Your task to perform on an android device: Empty the shopping cart on walmart. Search for "apple airpods" on walmart, select the first entry, and add it to the cart. Image 0: 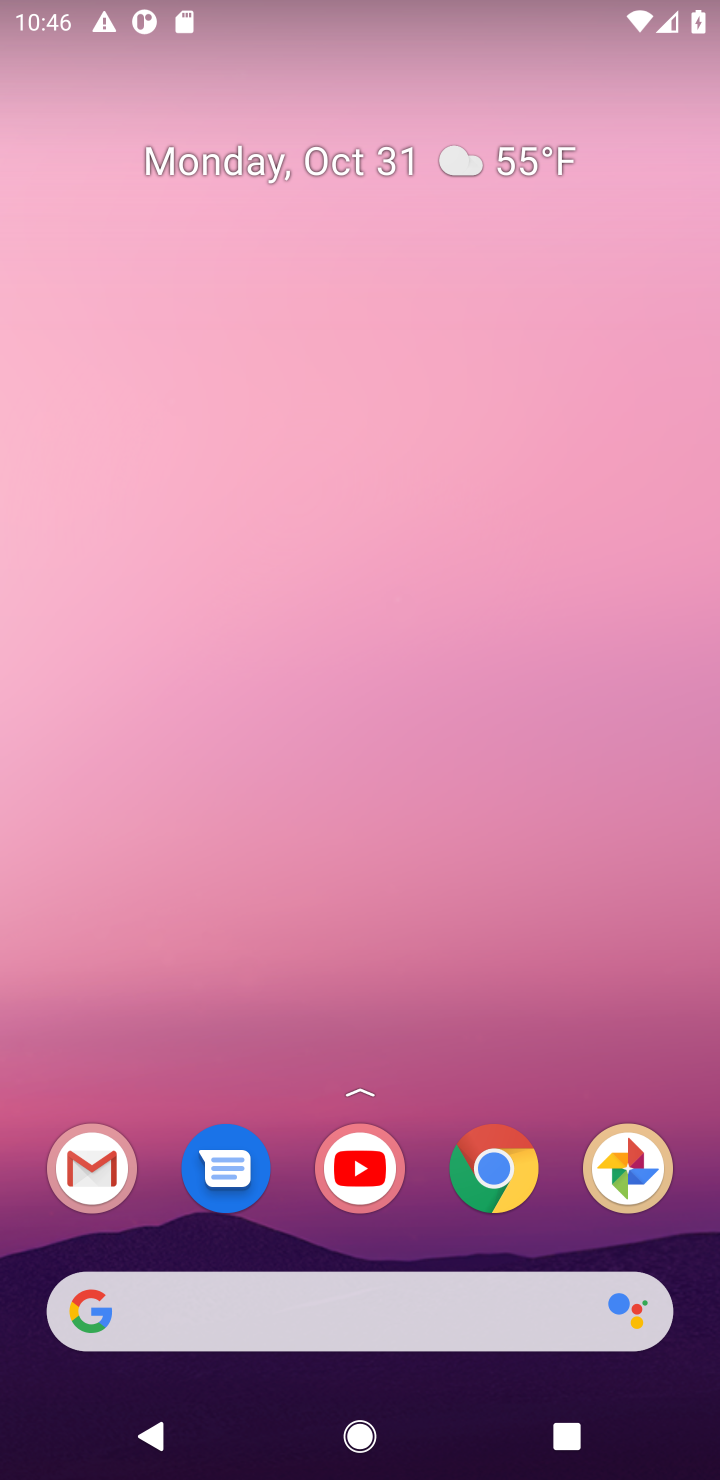
Step 0: click (503, 1171)
Your task to perform on an android device: Empty the shopping cart on walmart. Search for "apple airpods" on walmart, select the first entry, and add it to the cart. Image 1: 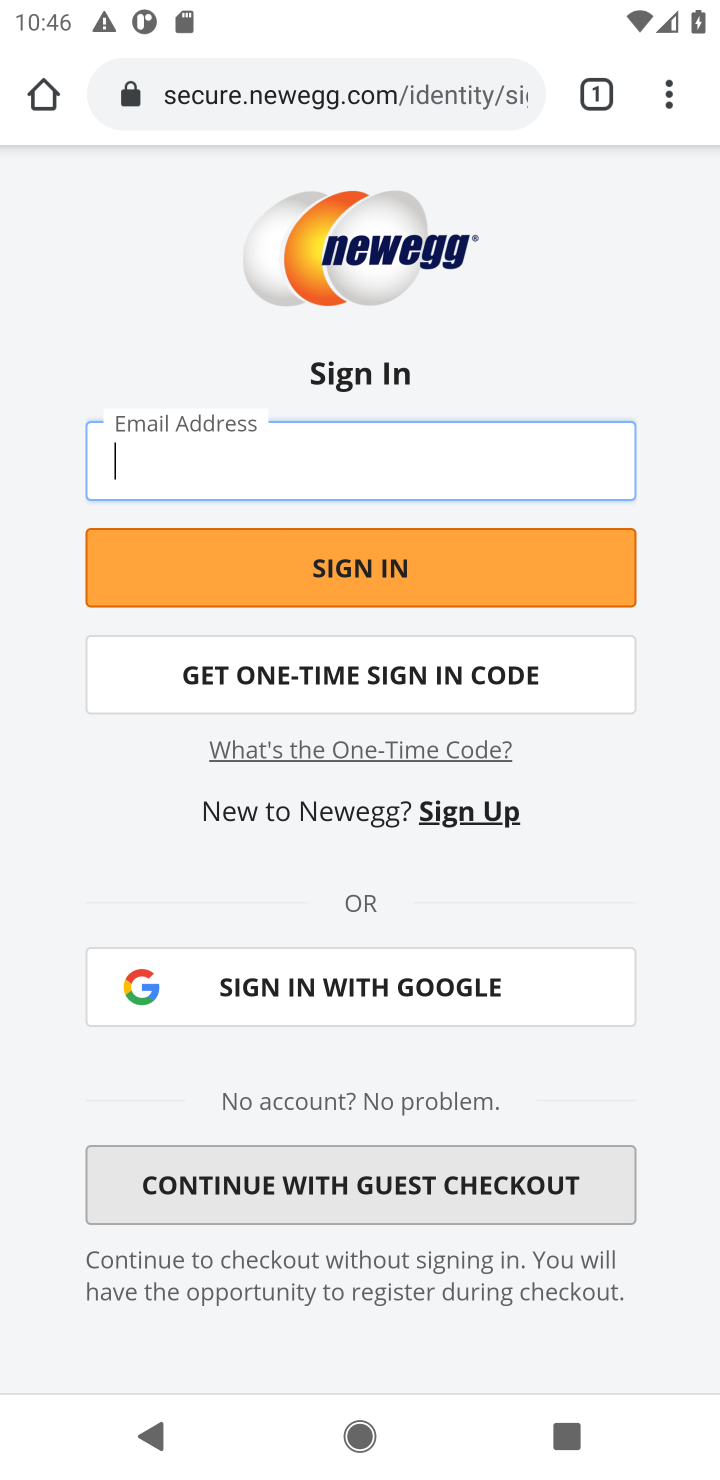
Step 1: click (294, 93)
Your task to perform on an android device: Empty the shopping cart on walmart. Search for "apple airpods" on walmart, select the first entry, and add it to the cart. Image 2: 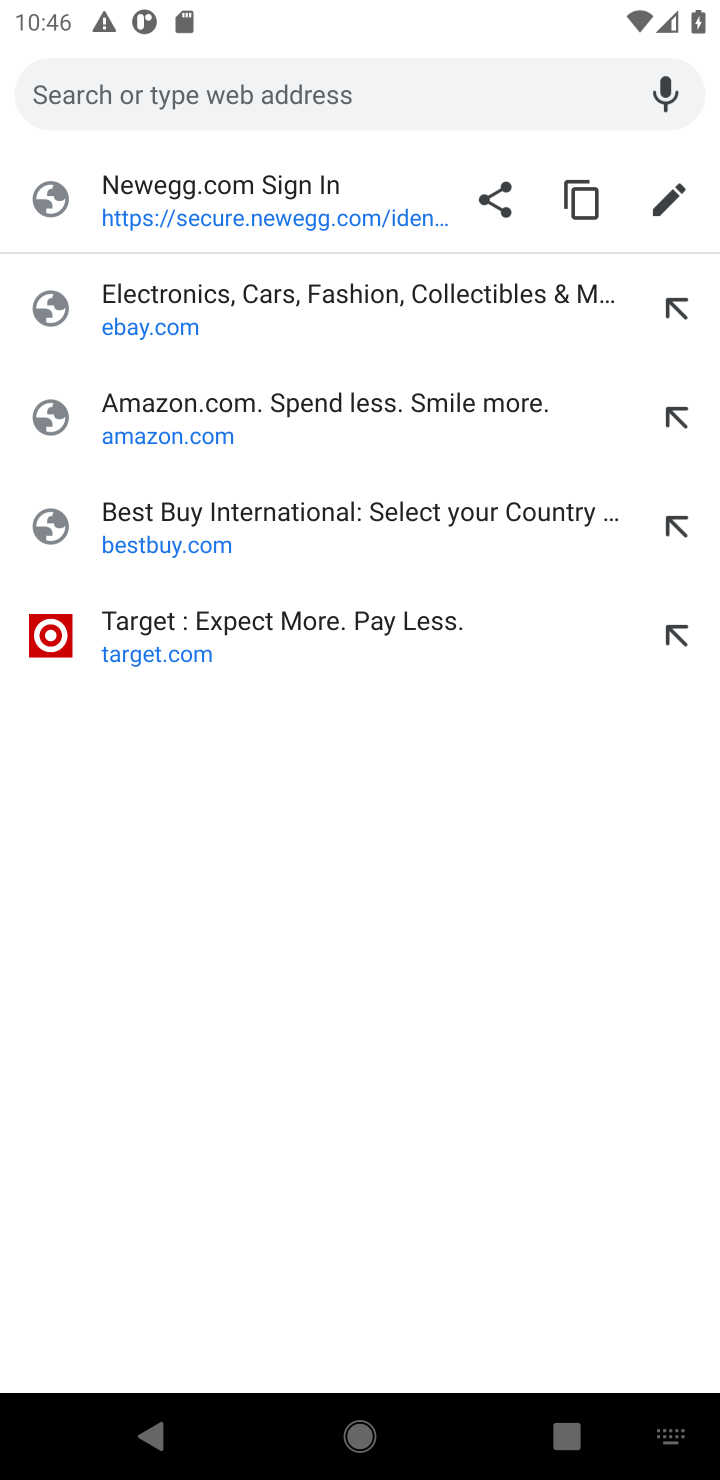
Step 2: type "wallmart"
Your task to perform on an android device: Empty the shopping cart on walmart. Search for "apple airpods" on walmart, select the first entry, and add it to the cart. Image 3: 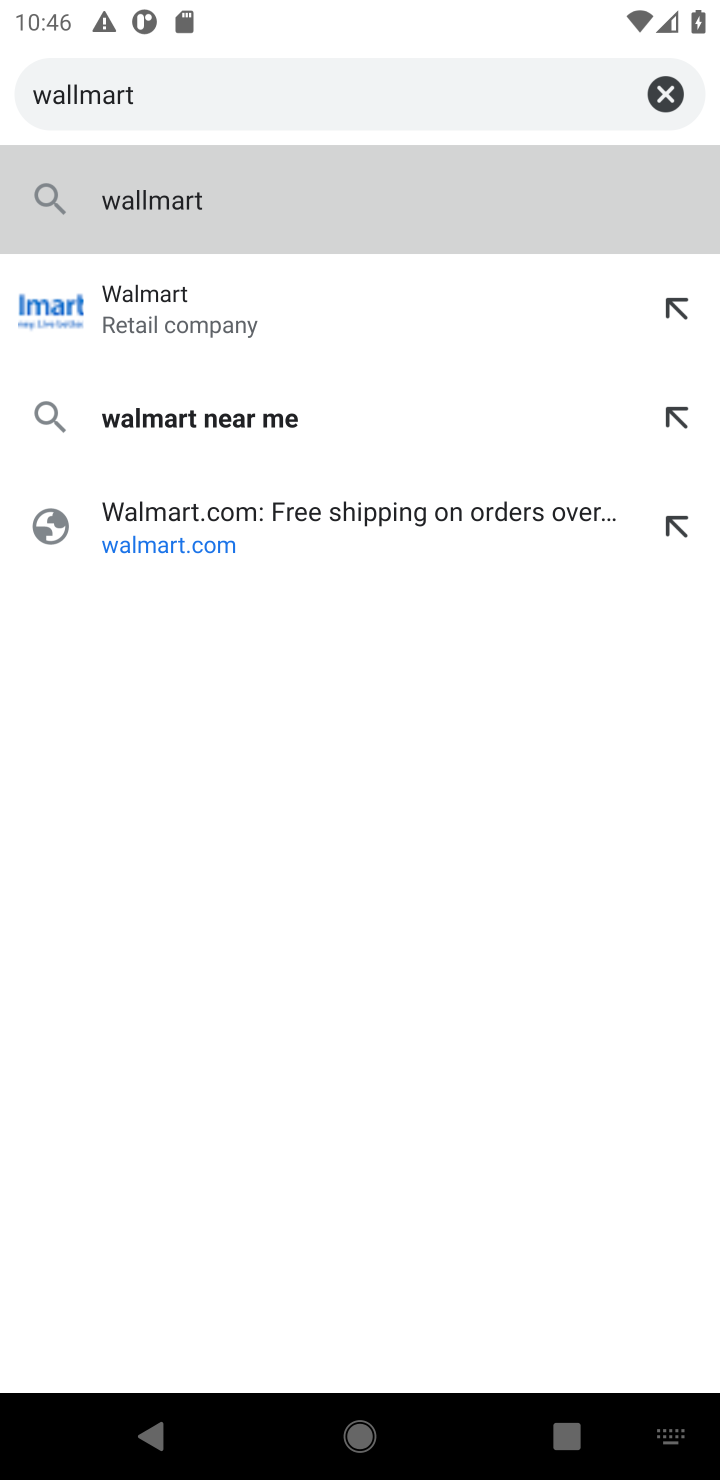
Step 3: click (171, 213)
Your task to perform on an android device: Empty the shopping cart on walmart. Search for "apple airpods" on walmart, select the first entry, and add it to the cart. Image 4: 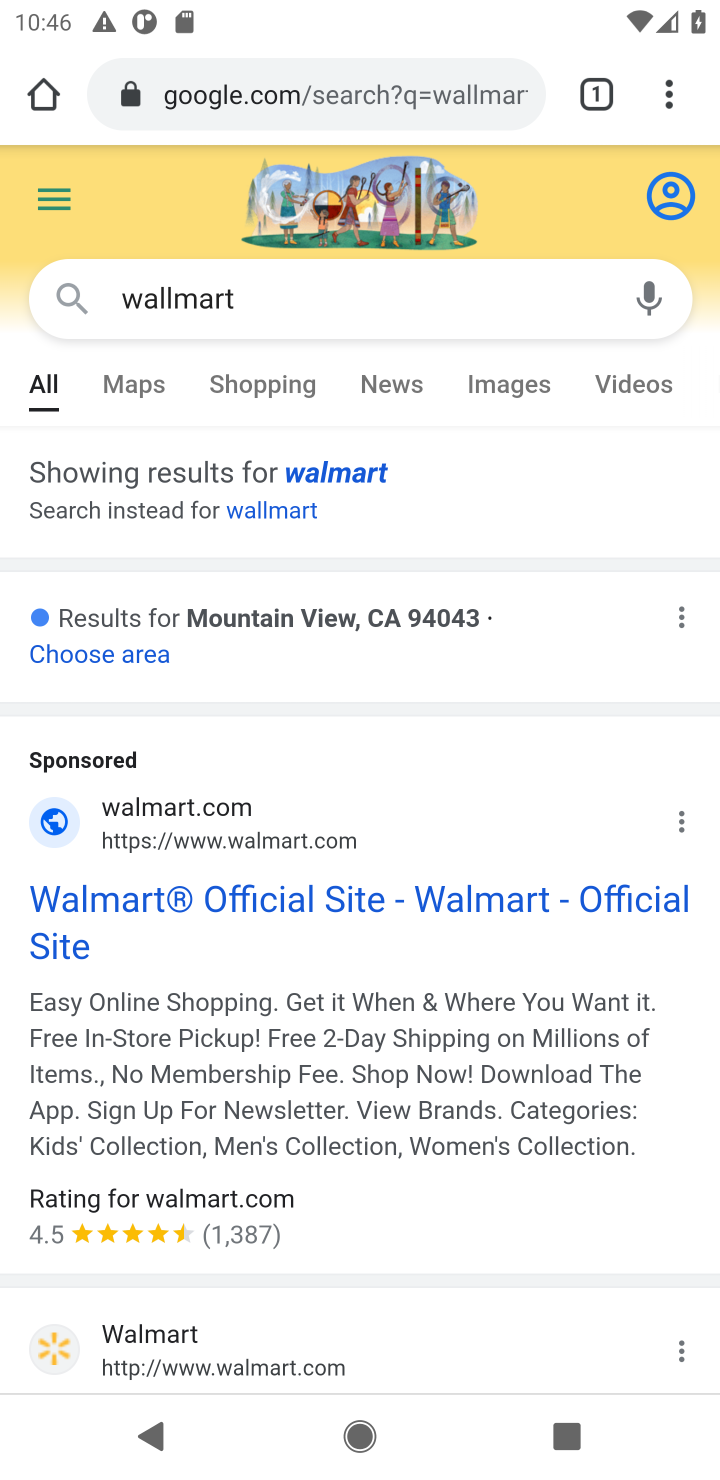
Step 4: drag from (476, 847) to (490, 459)
Your task to perform on an android device: Empty the shopping cart on walmart. Search for "apple airpods" on walmart, select the first entry, and add it to the cart. Image 5: 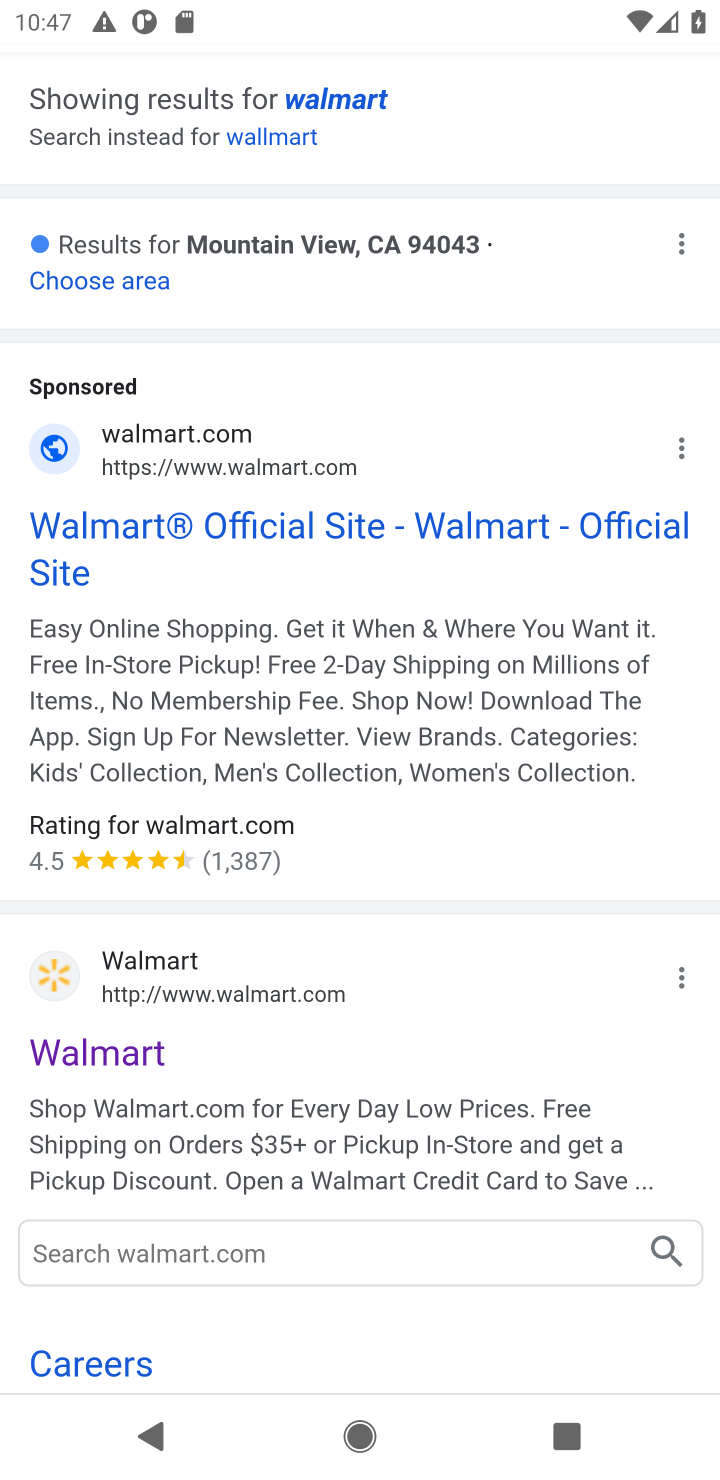
Step 5: click (105, 1046)
Your task to perform on an android device: Empty the shopping cart on walmart. Search for "apple airpods" on walmart, select the first entry, and add it to the cart. Image 6: 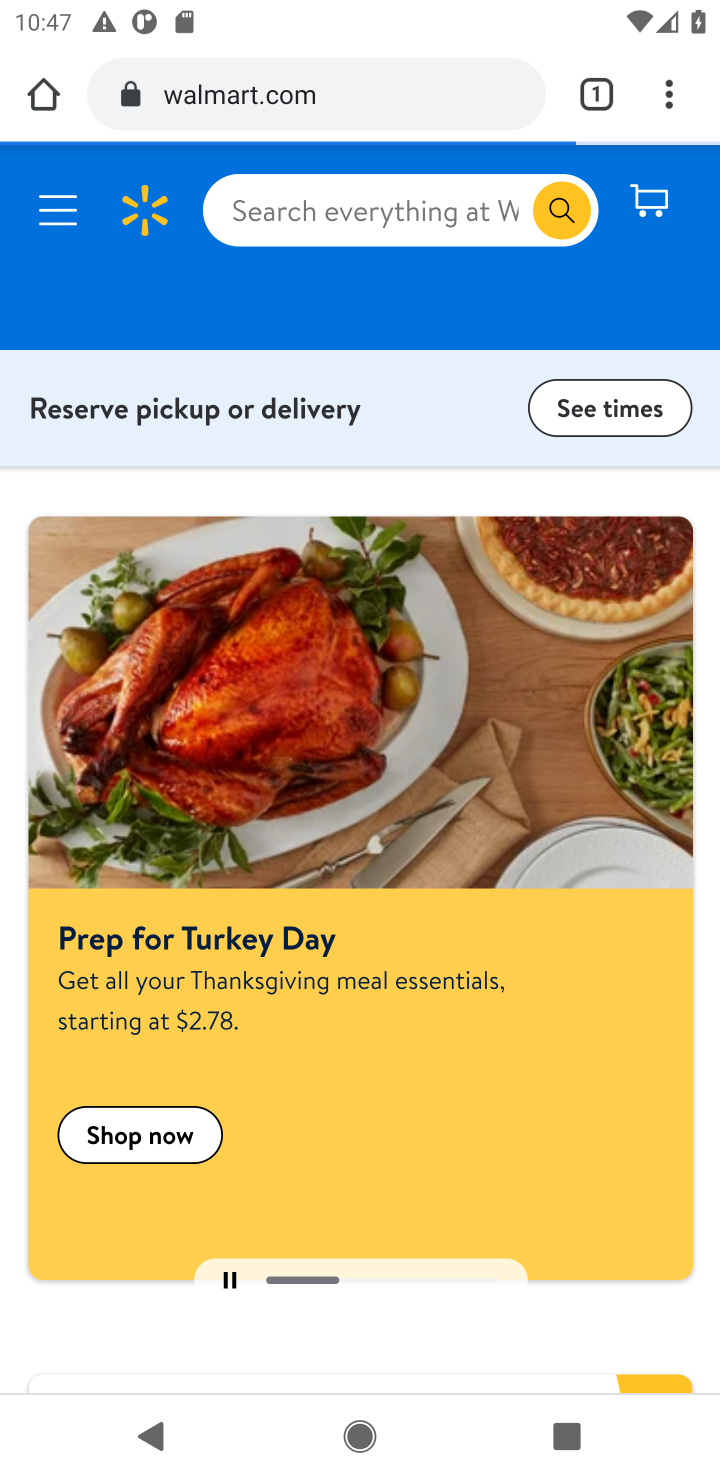
Step 6: drag from (592, 1319) to (546, 715)
Your task to perform on an android device: Empty the shopping cart on walmart. Search for "apple airpods" on walmart, select the first entry, and add it to the cart. Image 7: 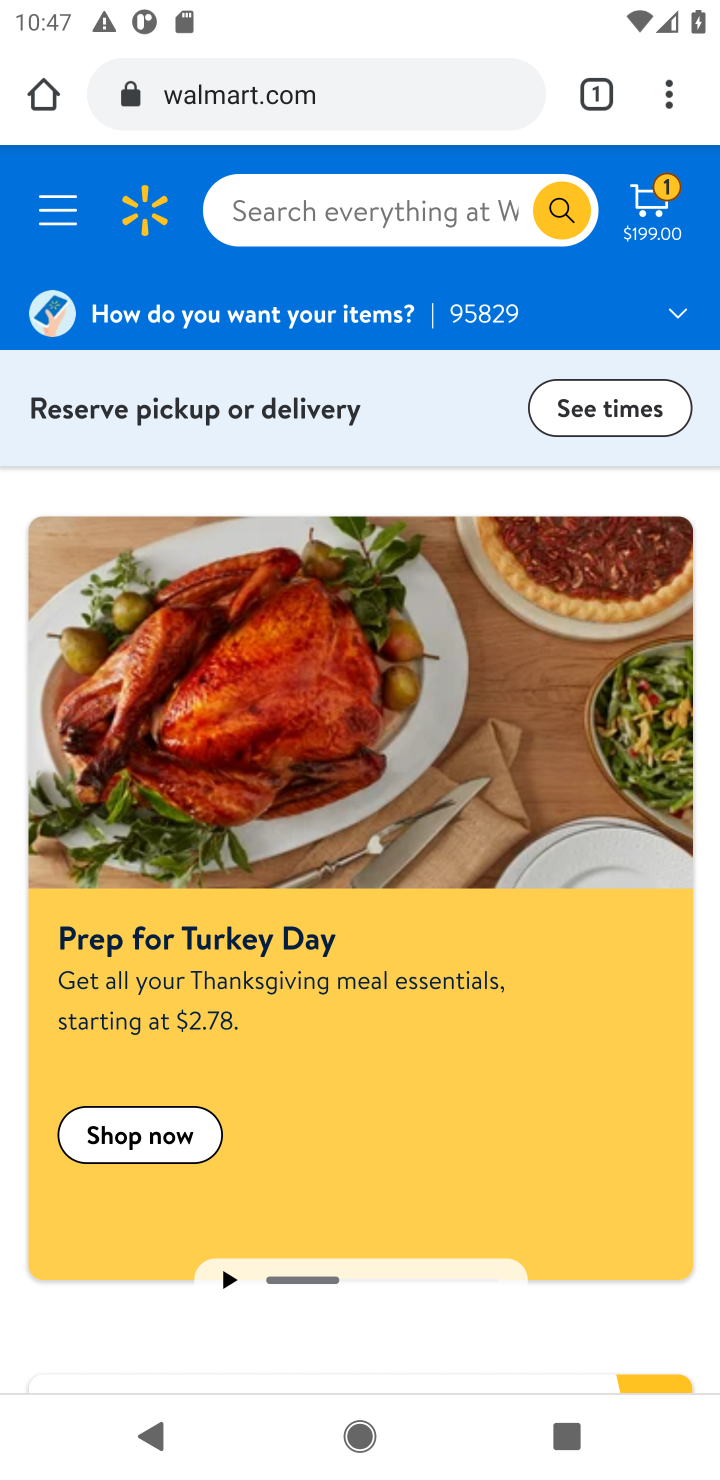
Step 7: click (484, 489)
Your task to perform on an android device: Empty the shopping cart on walmart. Search for "apple airpods" on walmart, select the first entry, and add it to the cart. Image 8: 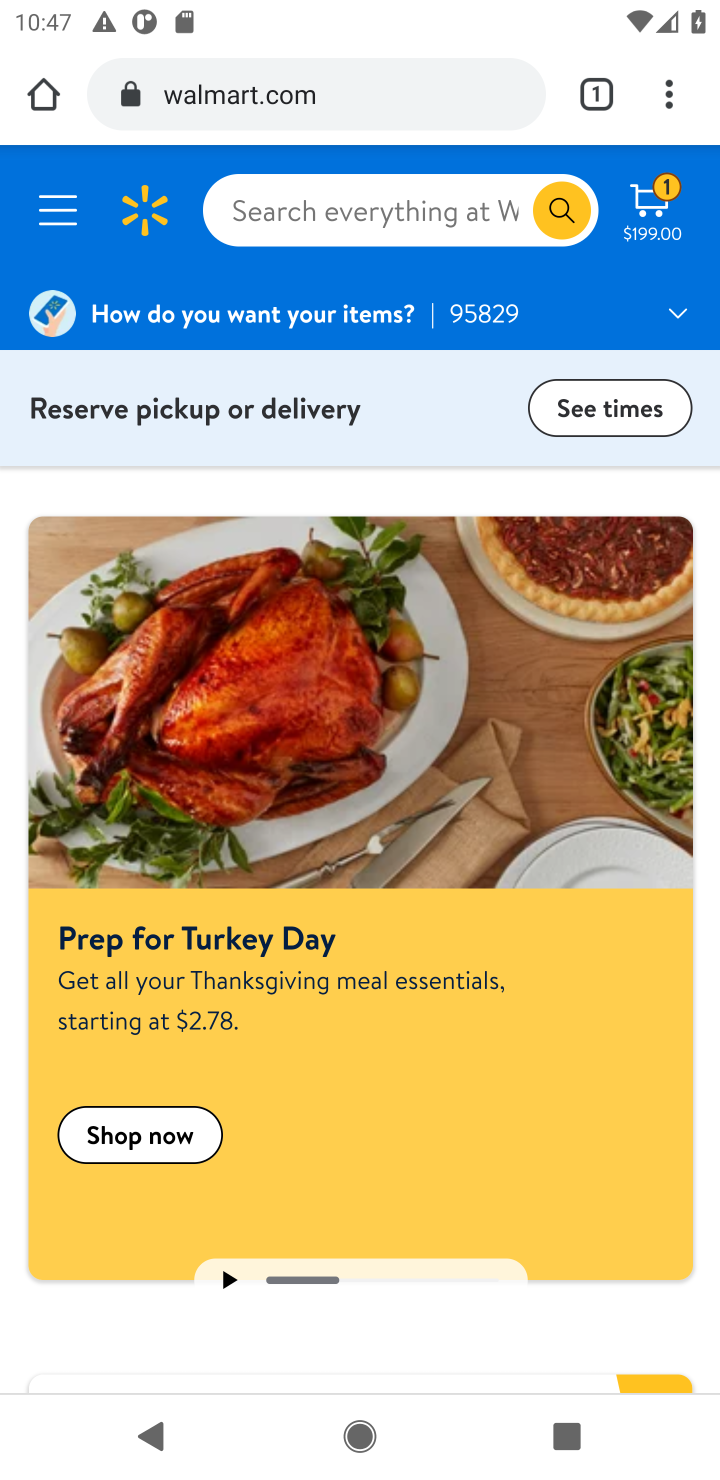
Step 8: click (655, 198)
Your task to perform on an android device: Empty the shopping cart on walmart. Search for "apple airpods" on walmart, select the first entry, and add it to the cart. Image 9: 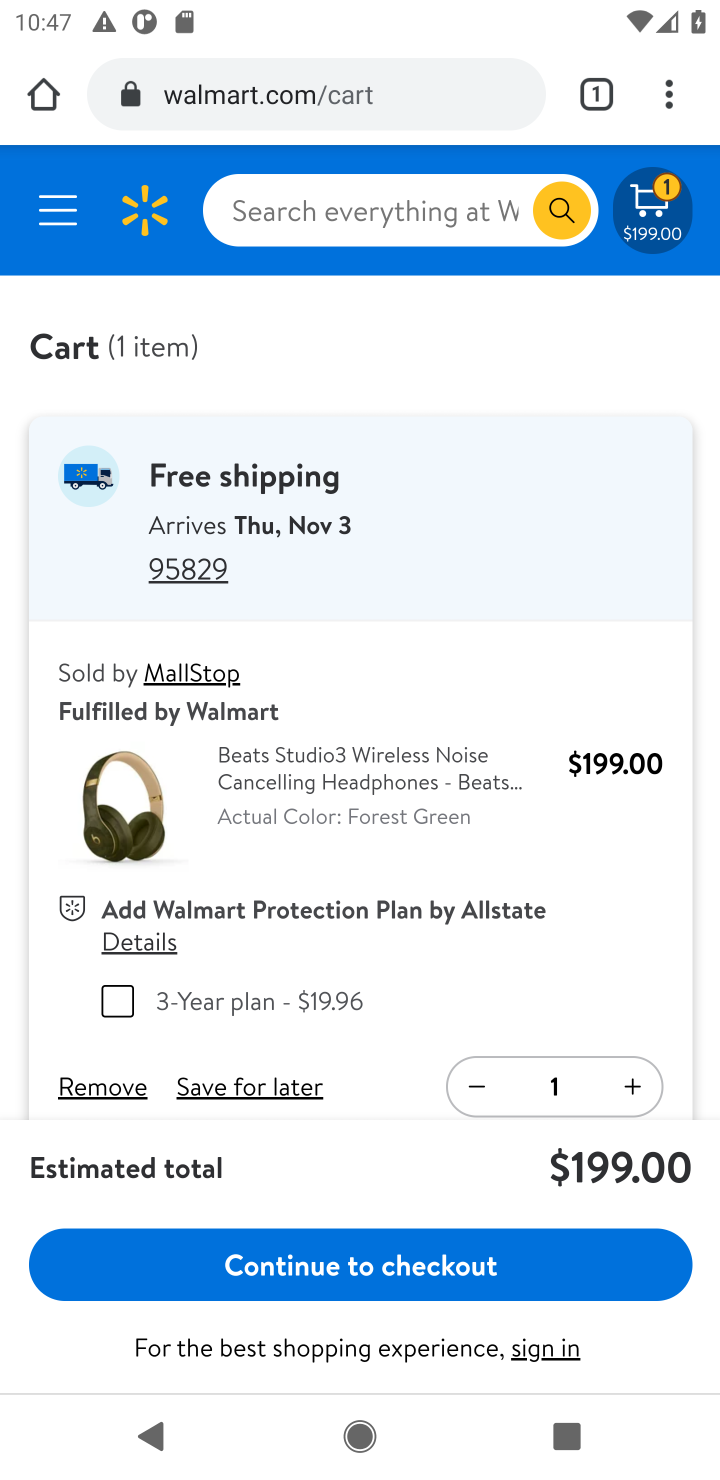
Step 9: click (472, 1083)
Your task to perform on an android device: Empty the shopping cart on walmart. Search for "apple airpods" on walmart, select the first entry, and add it to the cart. Image 10: 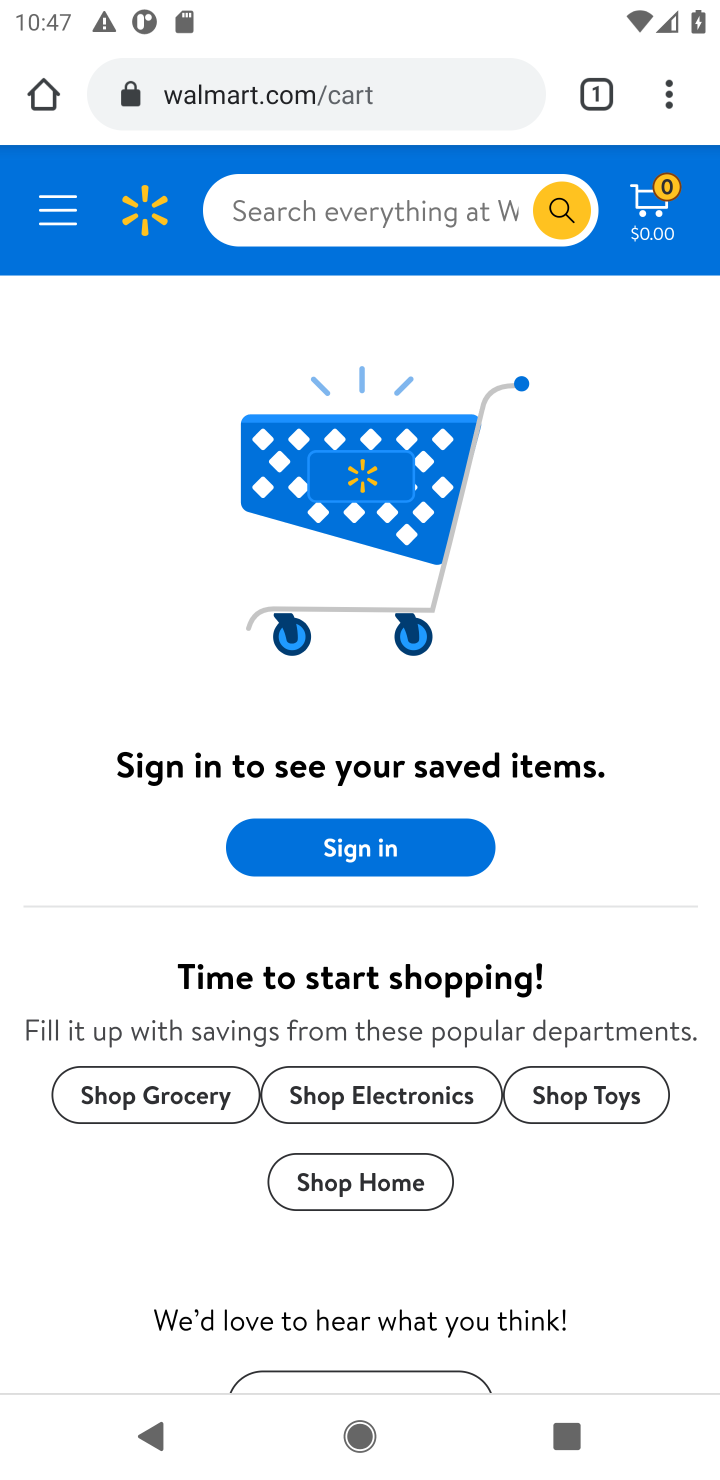
Step 10: click (421, 212)
Your task to perform on an android device: Empty the shopping cart on walmart. Search for "apple airpods" on walmart, select the first entry, and add it to the cart. Image 11: 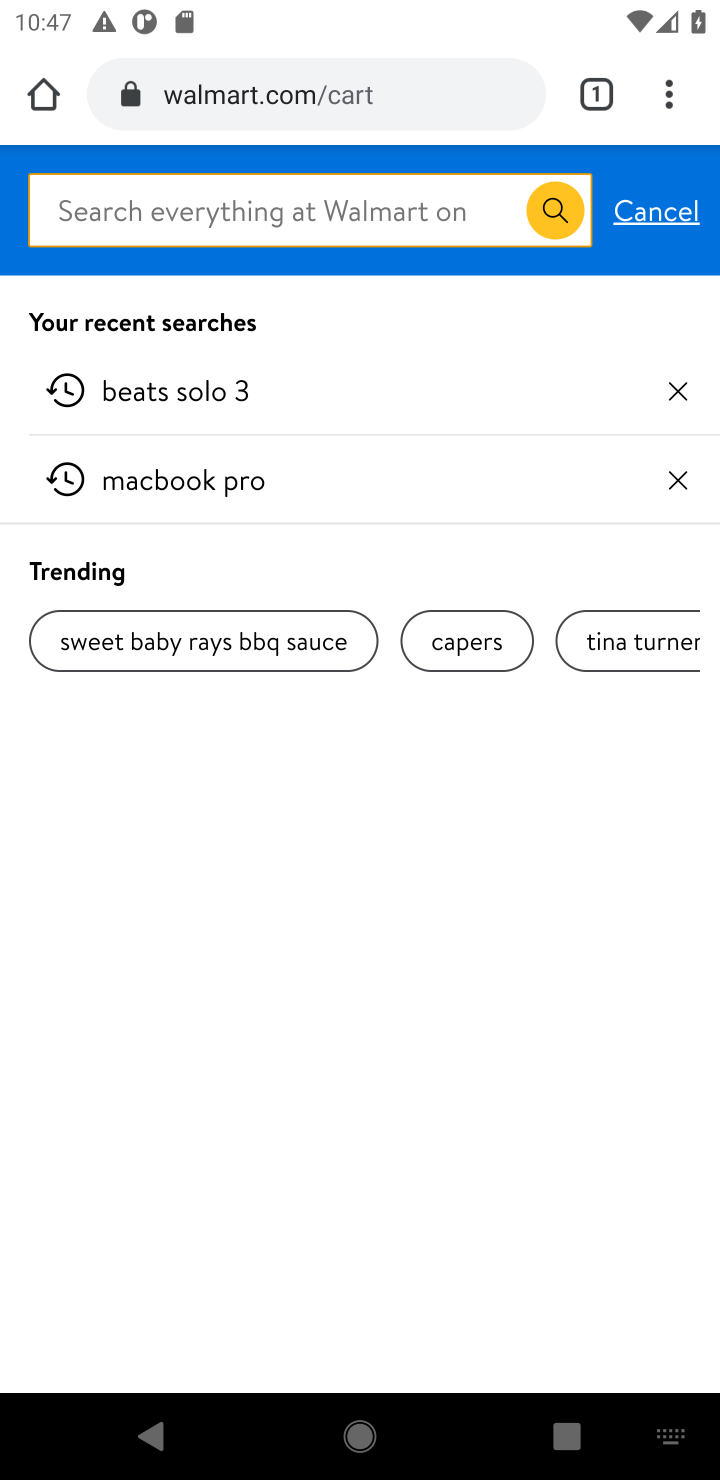
Step 11: type "apple airpods"
Your task to perform on an android device: Empty the shopping cart on walmart. Search for "apple airpods" on walmart, select the first entry, and add it to the cart. Image 12: 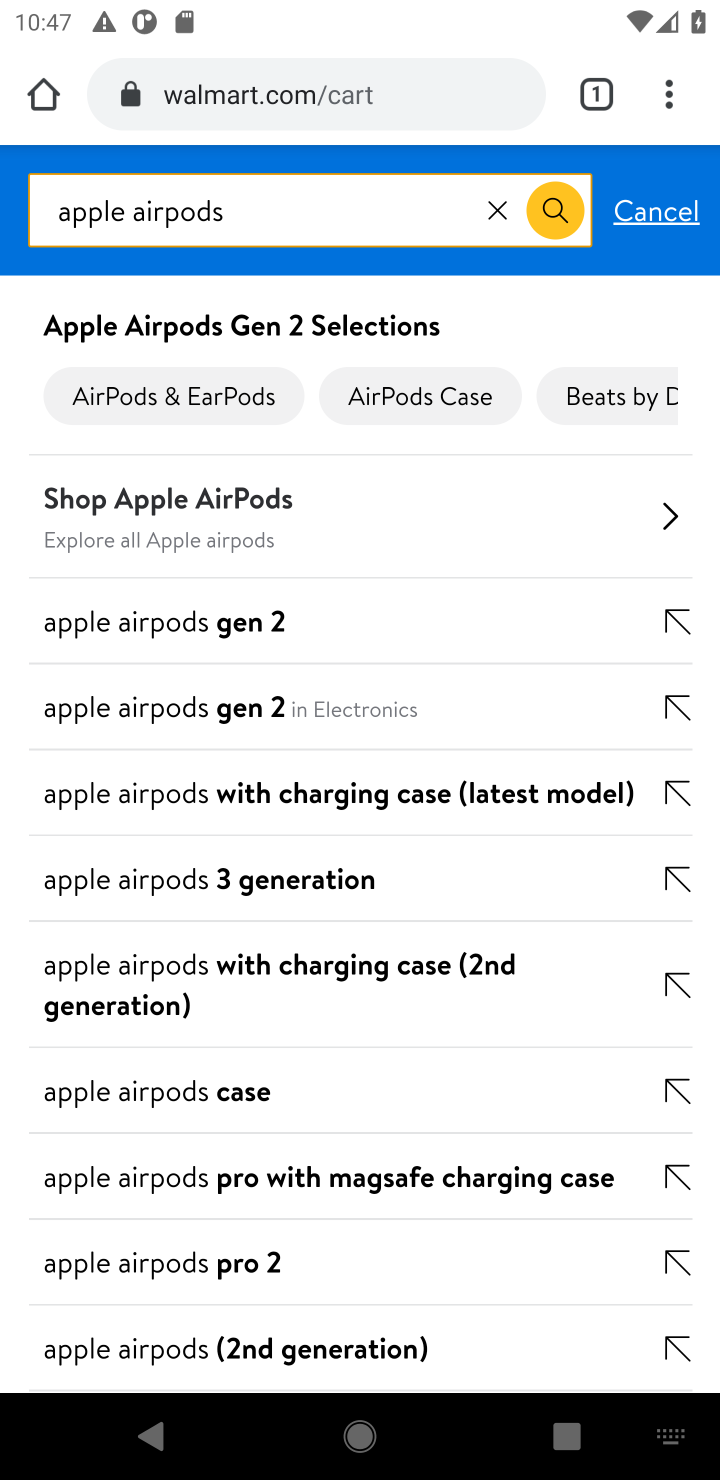
Step 12: press enter
Your task to perform on an android device: Empty the shopping cart on walmart. Search for "apple airpods" on walmart, select the first entry, and add it to the cart. Image 13: 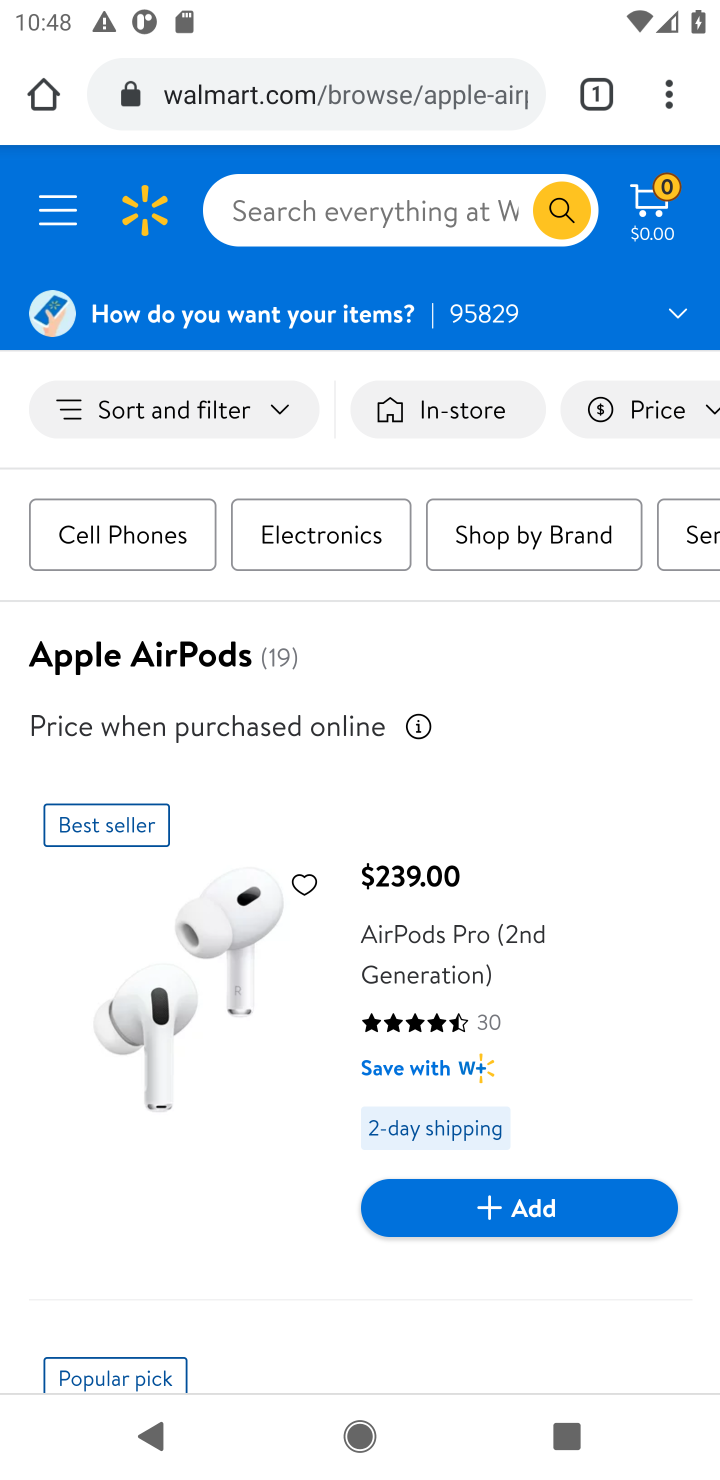
Step 13: drag from (651, 1041) to (617, 856)
Your task to perform on an android device: Empty the shopping cart on walmart. Search for "apple airpods" on walmart, select the first entry, and add it to the cart. Image 14: 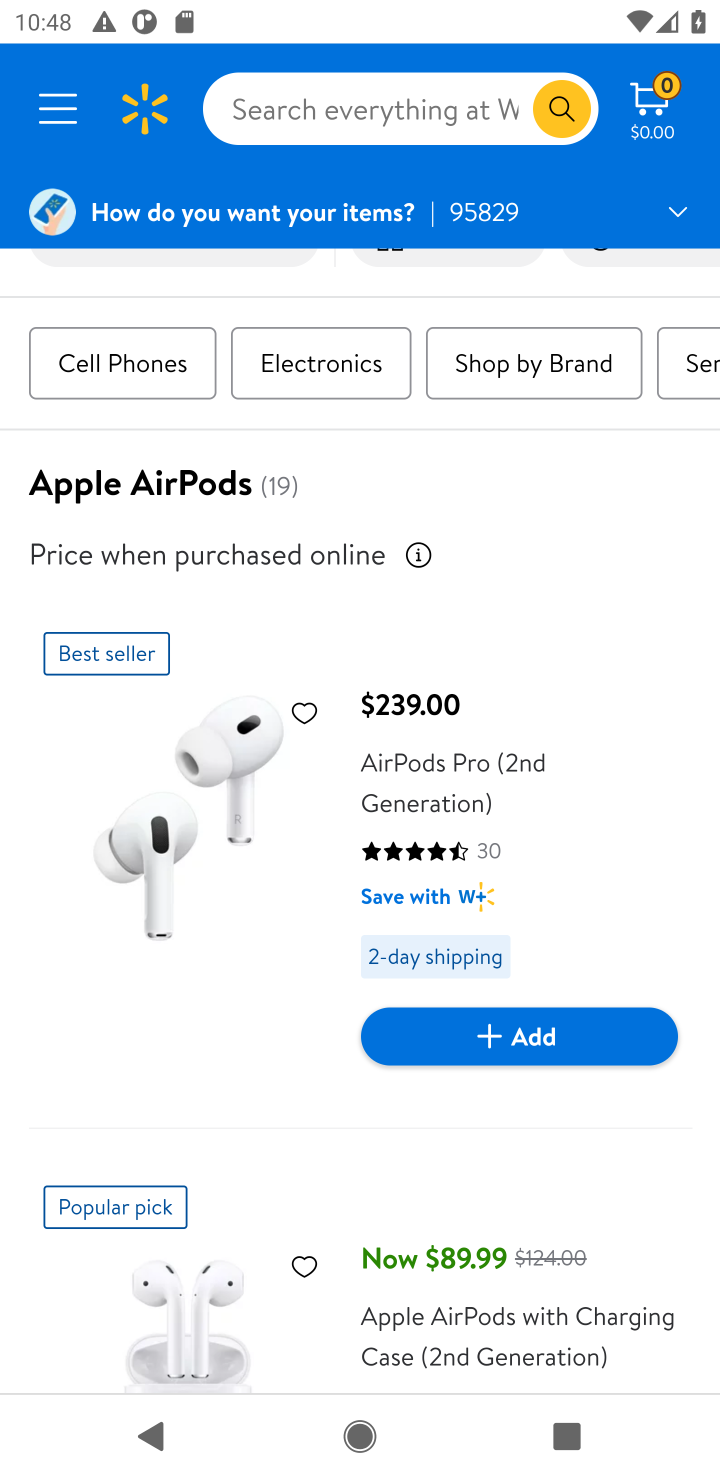
Step 14: click (431, 717)
Your task to perform on an android device: Empty the shopping cart on walmart. Search for "apple airpods" on walmart, select the first entry, and add it to the cart. Image 15: 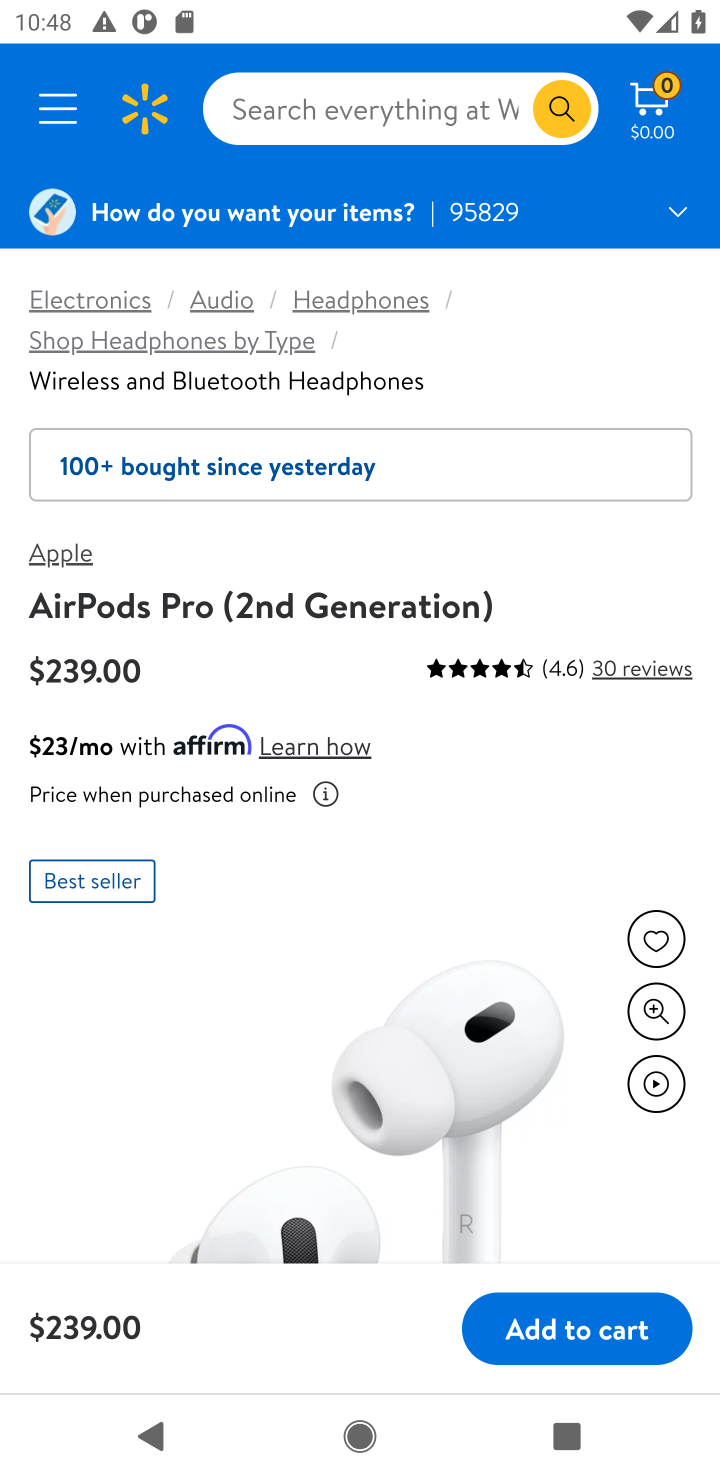
Step 15: click (561, 1341)
Your task to perform on an android device: Empty the shopping cart on walmart. Search for "apple airpods" on walmart, select the first entry, and add it to the cart. Image 16: 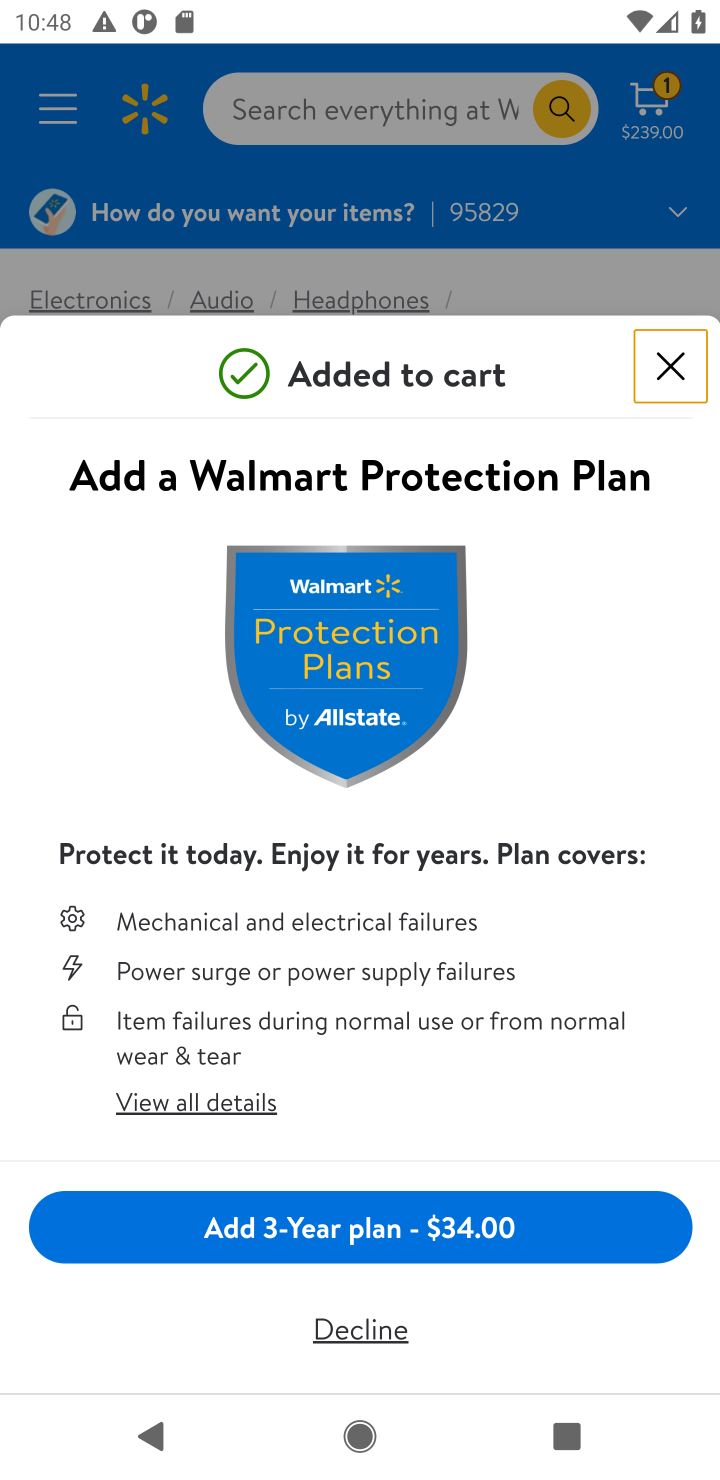
Step 16: click (377, 1328)
Your task to perform on an android device: Empty the shopping cart on walmart. Search for "apple airpods" on walmart, select the first entry, and add it to the cart. Image 17: 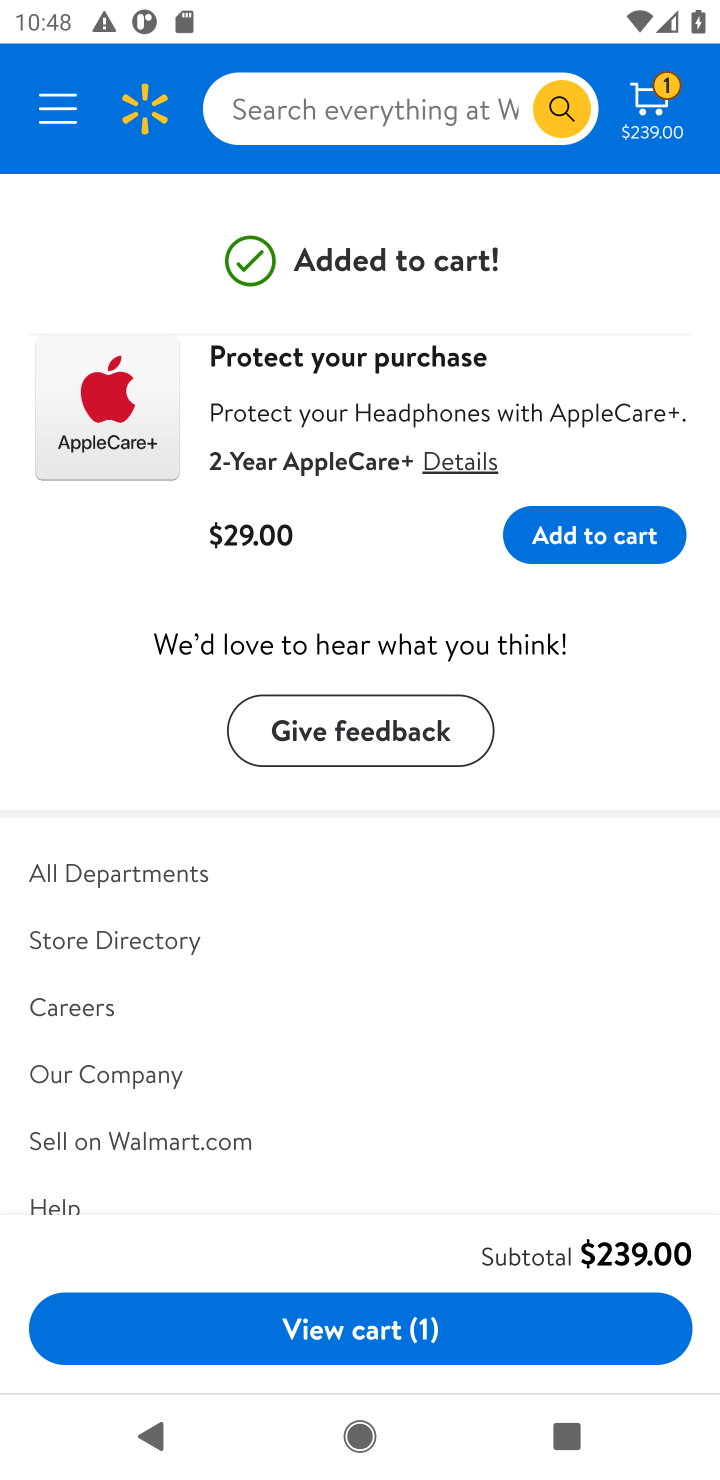
Step 17: task complete